Your task to perform on an android device: set default search engine in the chrome app Image 0: 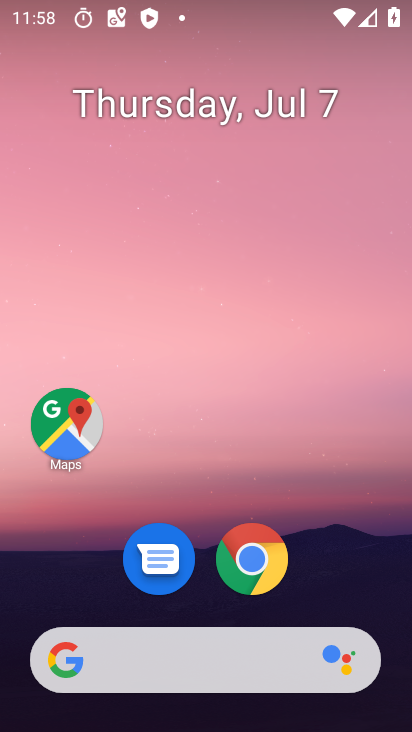
Step 0: drag from (367, 572) to (365, 143)
Your task to perform on an android device: set default search engine in the chrome app Image 1: 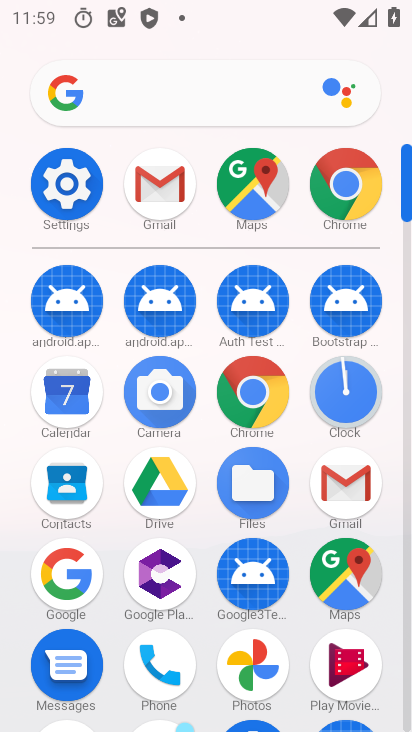
Step 1: click (257, 399)
Your task to perform on an android device: set default search engine in the chrome app Image 2: 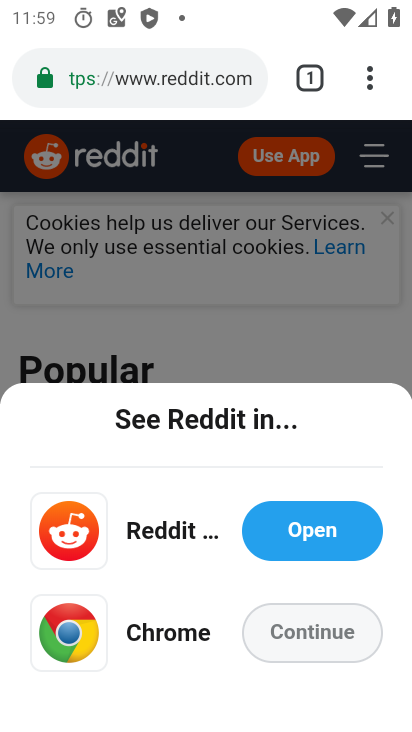
Step 2: click (372, 79)
Your task to perform on an android device: set default search engine in the chrome app Image 3: 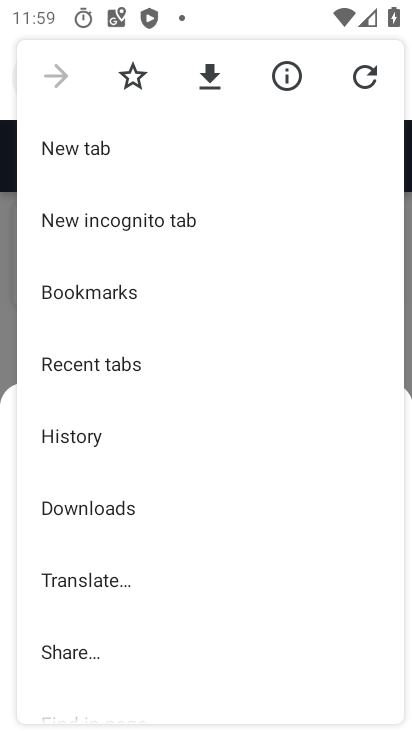
Step 3: drag from (356, 426) to (369, 353)
Your task to perform on an android device: set default search engine in the chrome app Image 4: 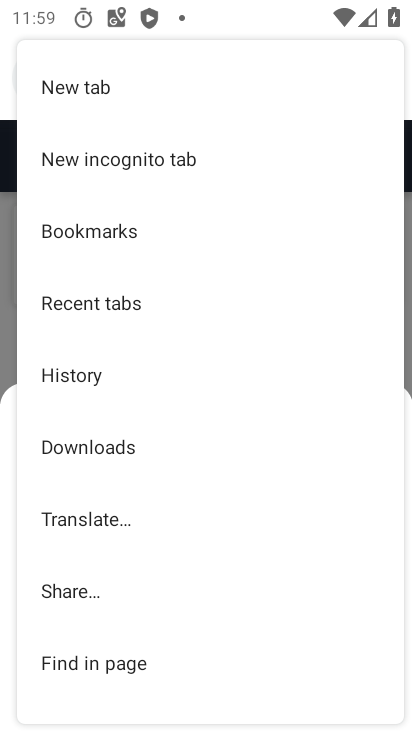
Step 4: drag from (349, 541) to (338, 410)
Your task to perform on an android device: set default search engine in the chrome app Image 5: 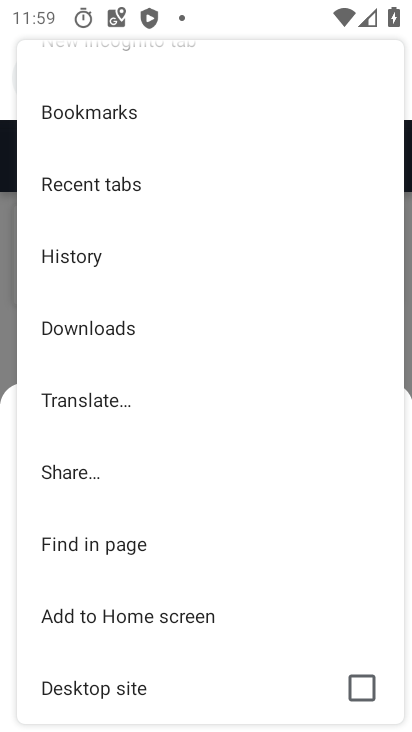
Step 5: drag from (320, 522) to (333, 415)
Your task to perform on an android device: set default search engine in the chrome app Image 6: 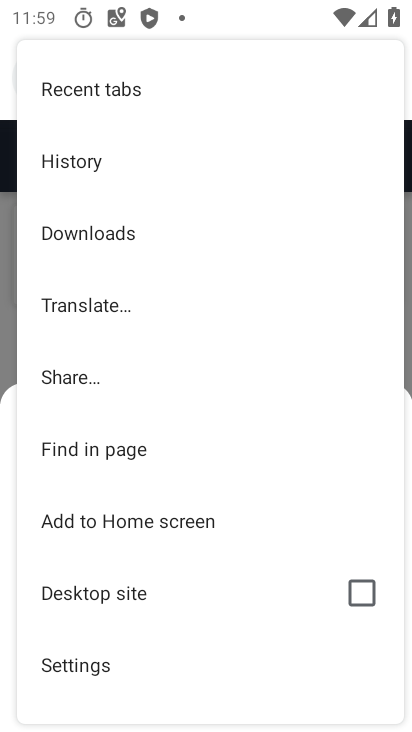
Step 6: drag from (290, 555) to (306, 466)
Your task to perform on an android device: set default search engine in the chrome app Image 7: 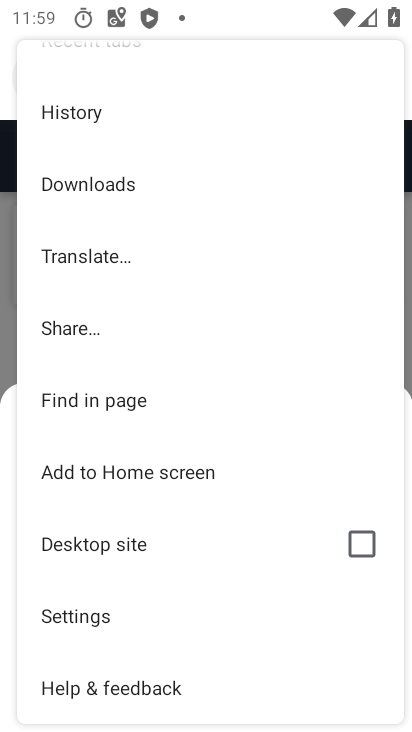
Step 7: click (137, 631)
Your task to perform on an android device: set default search engine in the chrome app Image 8: 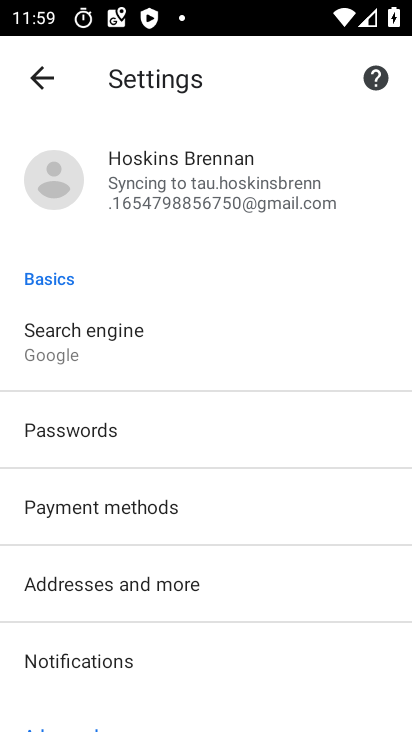
Step 8: drag from (265, 569) to (278, 446)
Your task to perform on an android device: set default search engine in the chrome app Image 9: 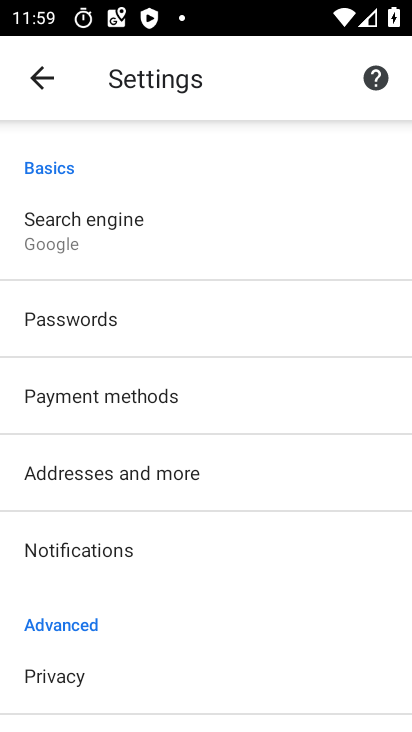
Step 9: drag from (296, 614) to (320, 459)
Your task to perform on an android device: set default search engine in the chrome app Image 10: 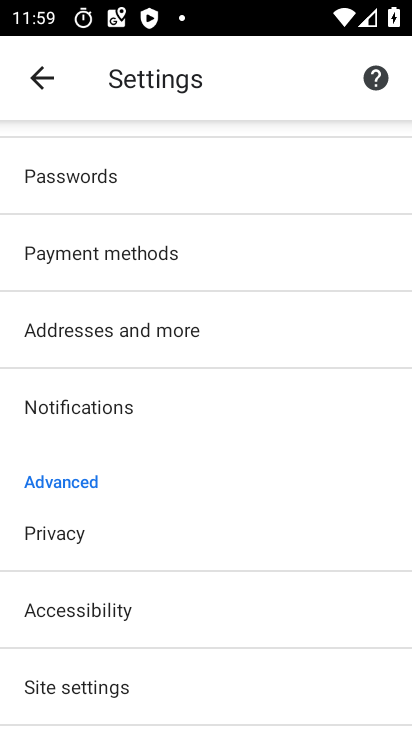
Step 10: drag from (322, 630) to (337, 478)
Your task to perform on an android device: set default search engine in the chrome app Image 11: 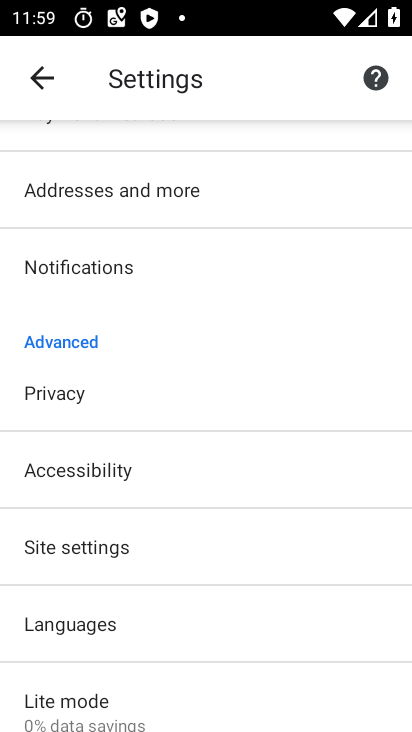
Step 11: drag from (318, 645) to (320, 502)
Your task to perform on an android device: set default search engine in the chrome app Image 12: 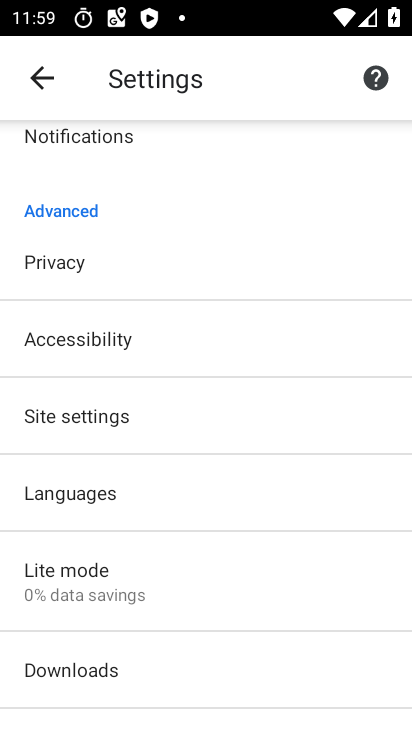
Step 12: drag from (293, 654) to (304, 482)
Your task to perform on an android device: set default search engine in the chrome app Image 13: 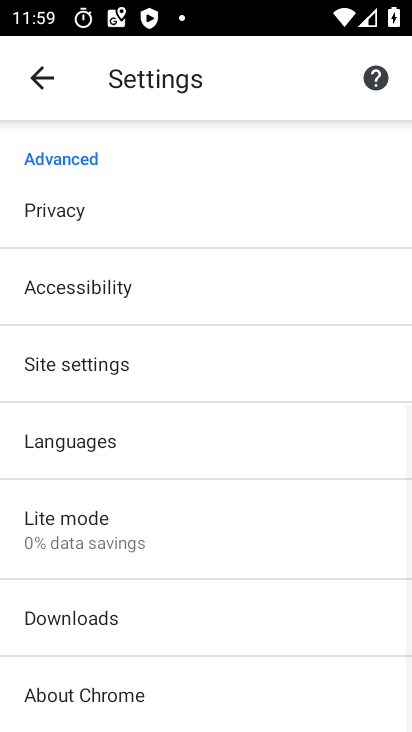
Step 13: drag from (313, 313) to (313, 424)
Your task to perform on an android device: set default search engine in the chrome app Image 14: 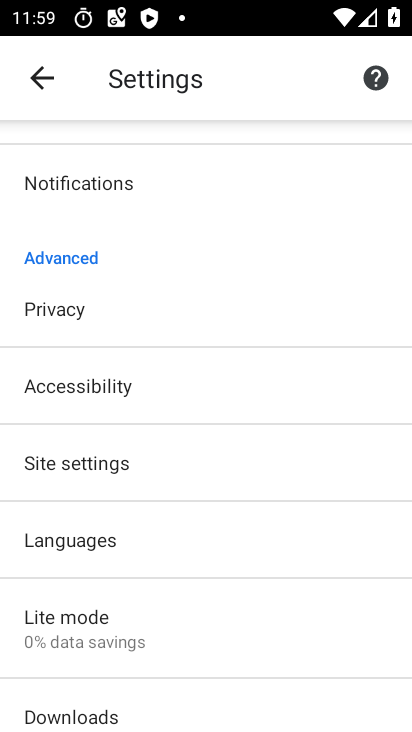
Step 14: drag from (313, 272) to (320, 583)
Your task to perform on an android device: set default search engine in the chrome app Image 15: 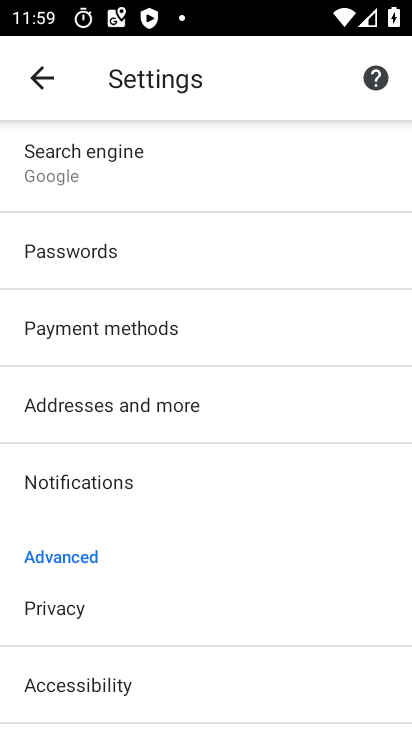
Step 15: click (214, 187)
Your task to perform on an android device: set default search engine in the chrome app Image 16: 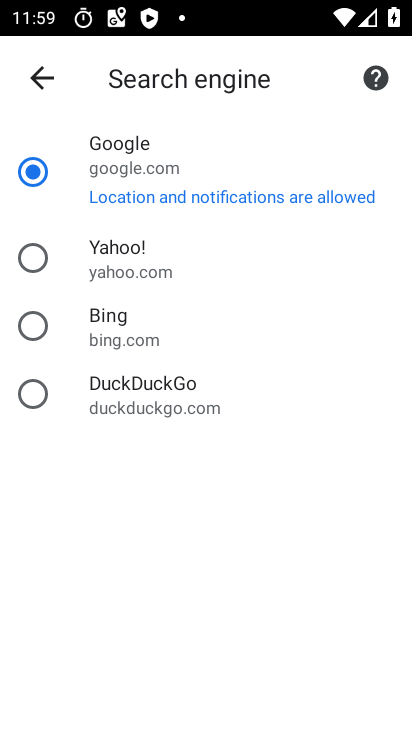
Step 16: click (143, 339)
Your task to perform on an android device: set default search engine in the chrome app Image 17: 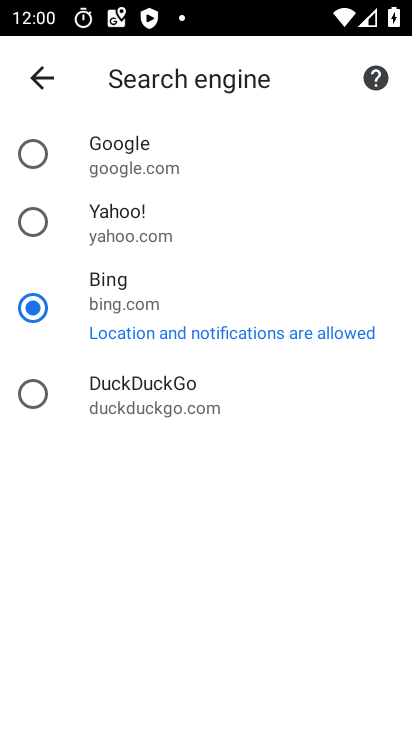
Step 17: task complete